Your task to perform on an android device: Go to Android settings Image 0: 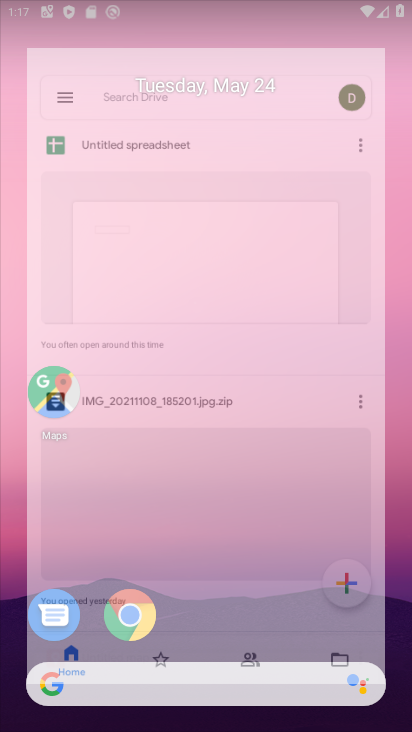
Step 0: press home button
Your task to perform on an android device: Go to Android settings Image 1: 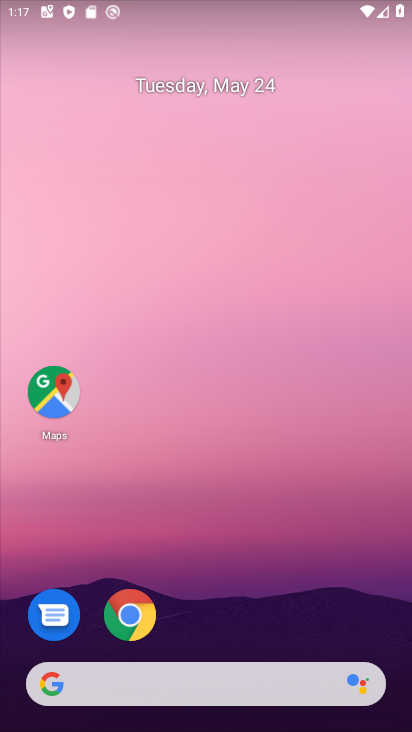
Step 1: drag from (218, 646) to (214, 65)
Your task to perform on an android device: Go to Android settings Image 2: 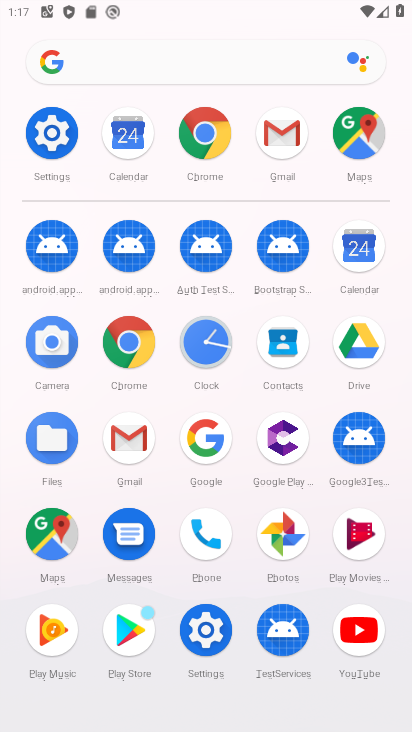
Step 2: click (45, 130)
Your task to perform on an android device: Go to Android settings Image 3: 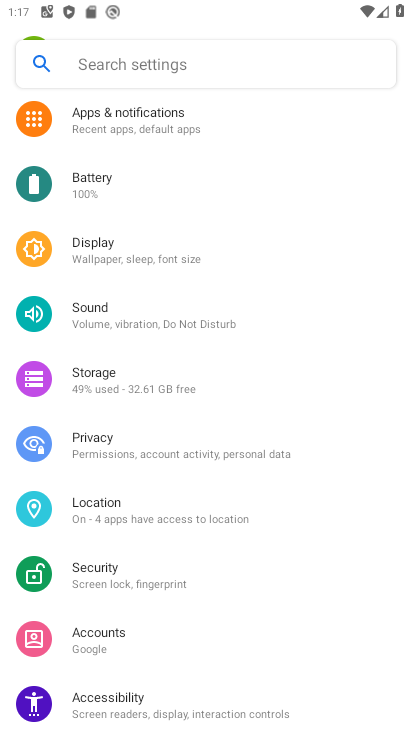
Step 3: drag from (159, 687) to (155, 51)
Your task to perform on an android device: Go to Android settings Image 4: 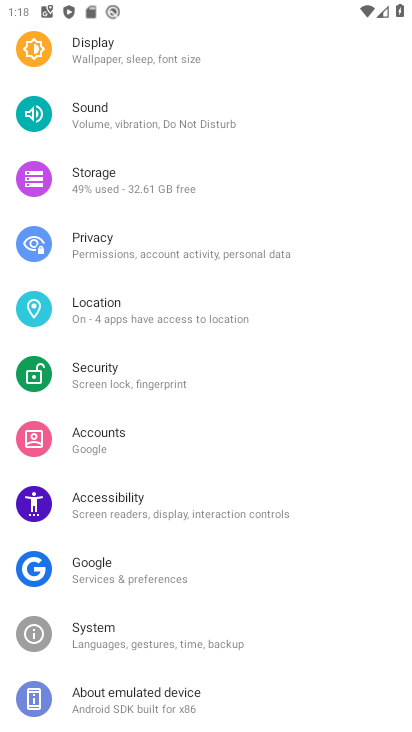
Step 4: click (223, 693)
Your task to perform on an android device: Go to Android settings Image 5: 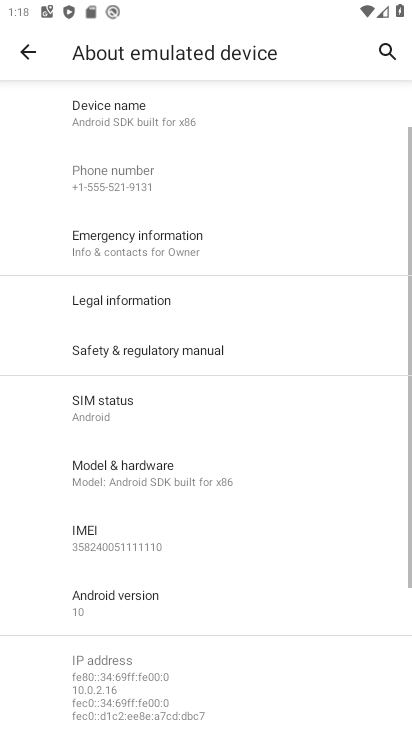
Step 5: click (128, 609)
Your task to perform on an android device: Go to Android settings Image 6: 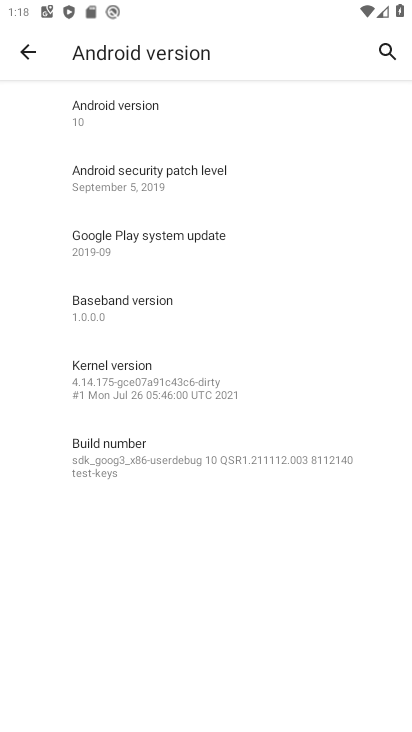
Step 6: click (109, 118)
Your task to perform on an android device: Go to Android settings Image 7: 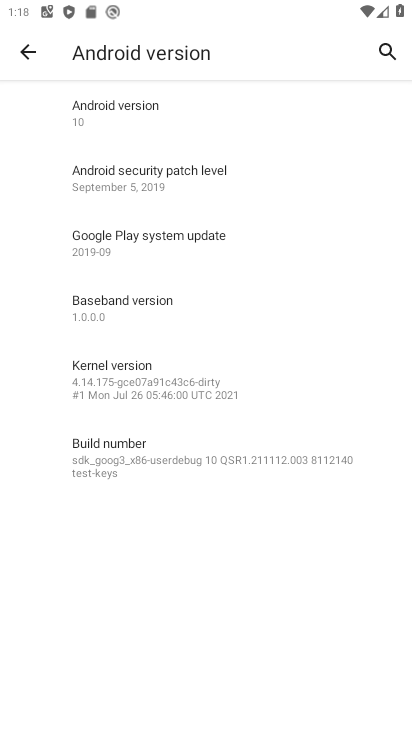
Step 7: task complete